Your task to perform on an android device: Go to network settings Image 0: 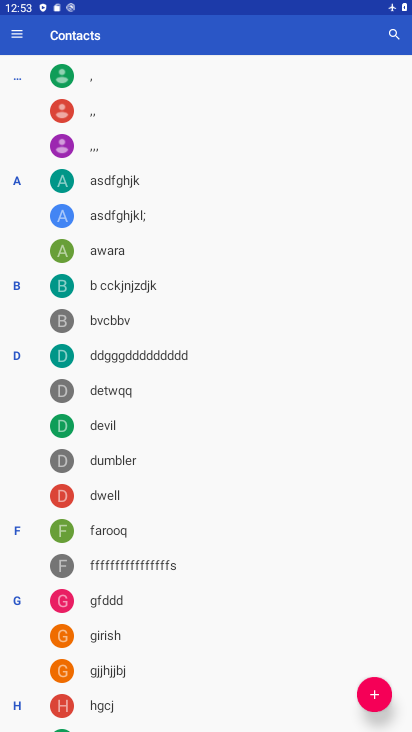
Step 0: press home button
Your task to perform on an android device: Go to network settings Image 1: 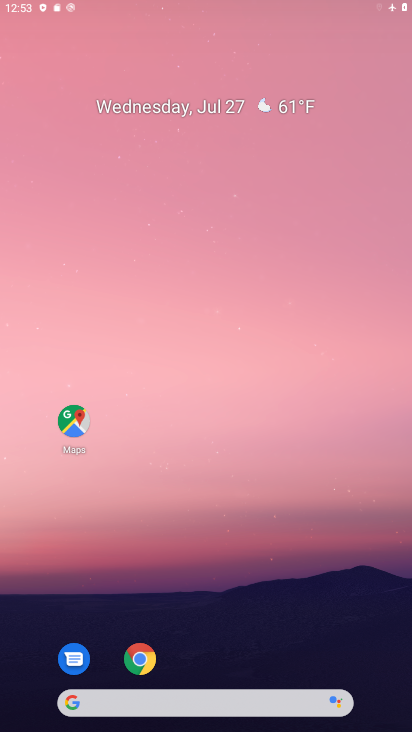
Step 1: drag from (203, 628) to (201, 129)
Your task to perform on an android device: Go to network settings Image 2: 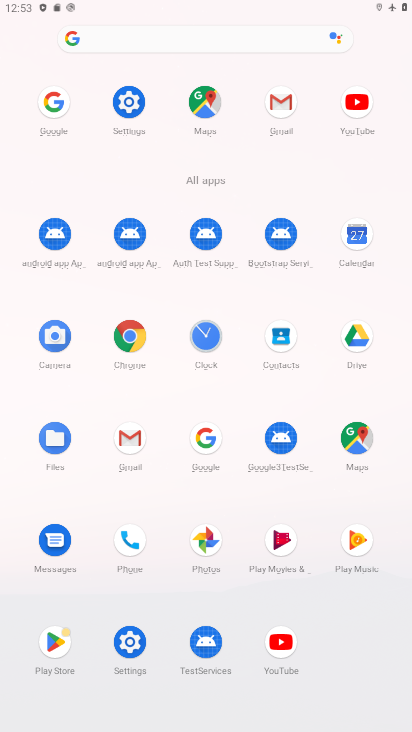
Step 2: click (139, 111)
Your task to perform on an android device: Go to network settings Image 3: 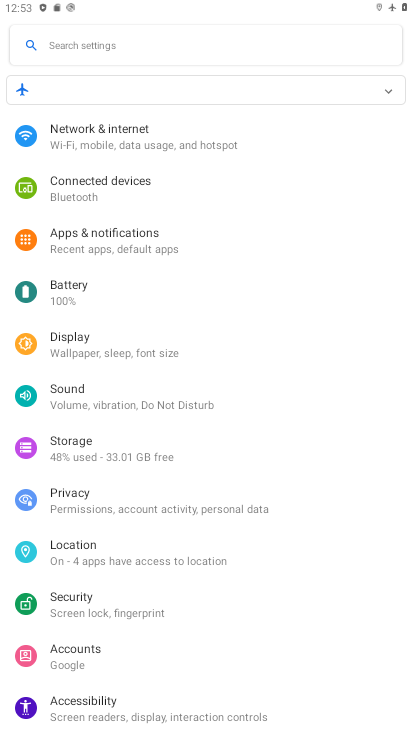
Step 3: click (142, 130)
Your task to perform on an android device: Go to network settings Image 4: 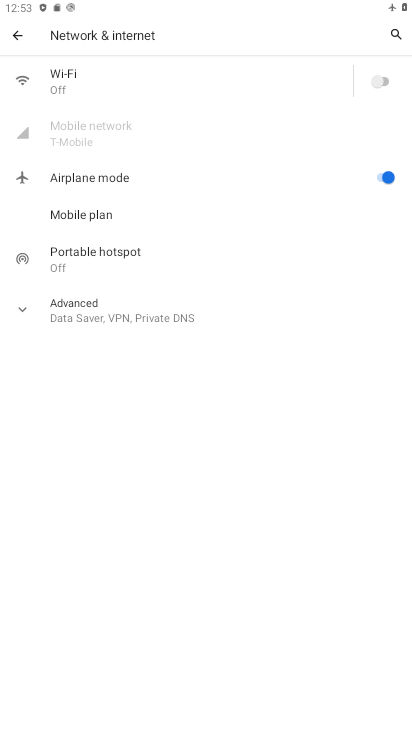
Step 4: task complete